Your task to perform on an android device: What's the weather today? Image 0: 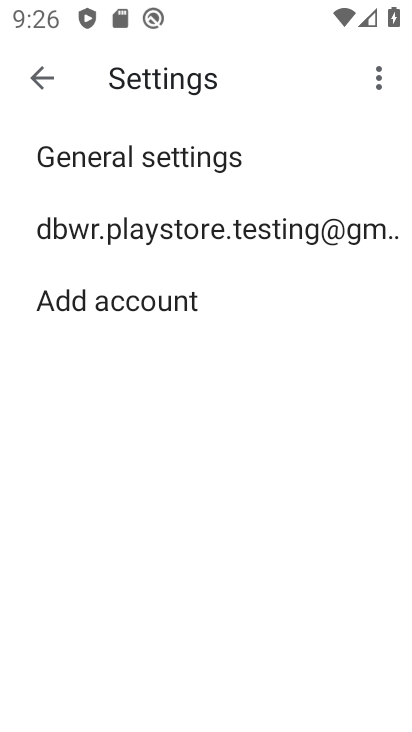
Step 0: press home button
Your task to perform on an android device: What's the weather today? Image 1: 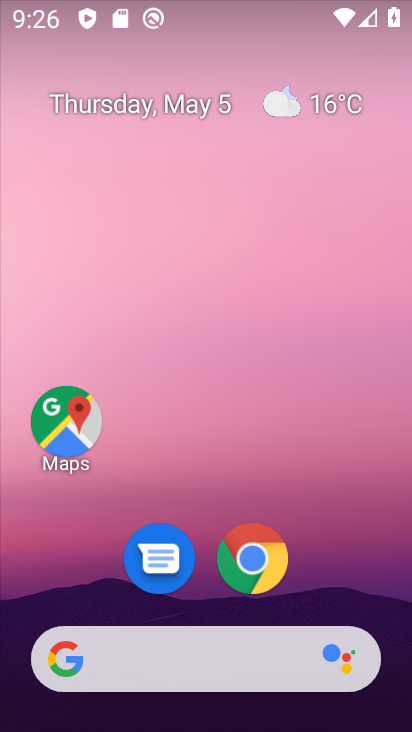
Step 1: click (277, 564)
Your task to perform on an android device: What's the weather today? Image 2: 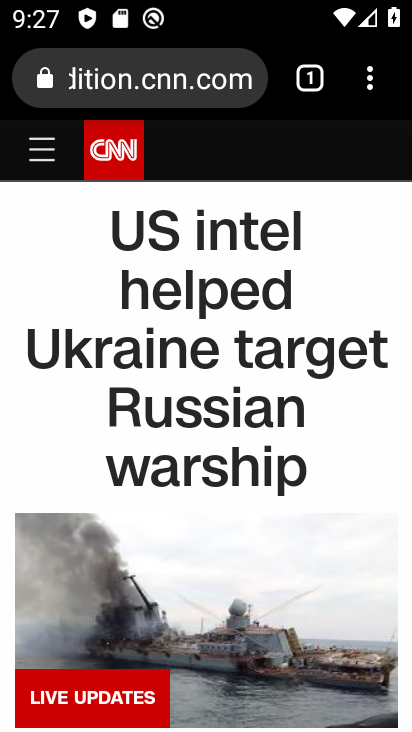
Step 2: click (148, 61)
Your task to perform on an android device: What's the weather today? Image 3: 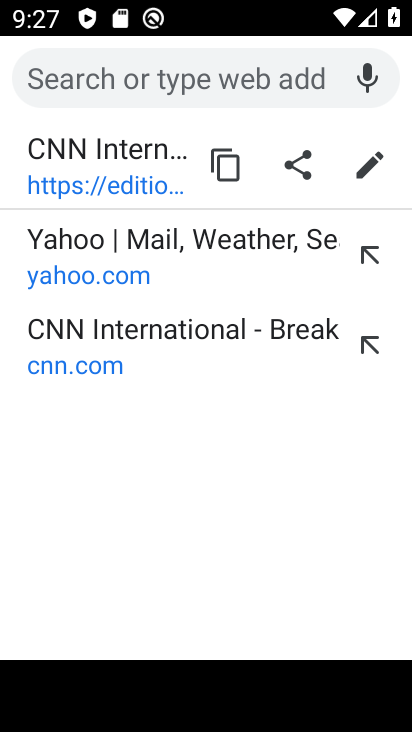
Step 3: type "What's the weather today?"
Your task to perform on an android device: What's the weather today? Image 4: 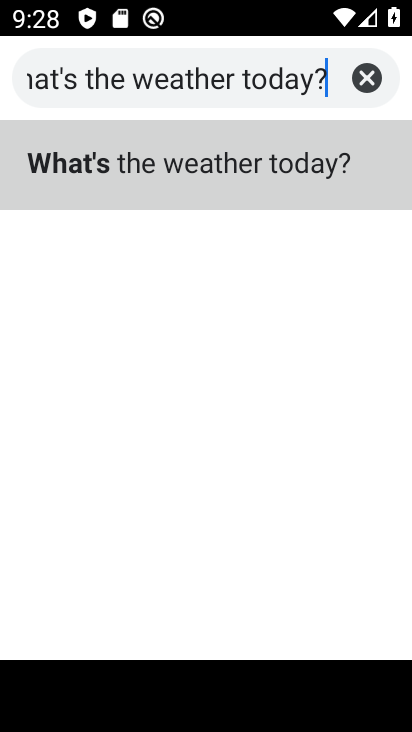
Step 4: click (229, 170)
Your task to perform on an android device: What's the weather today? Image 5: 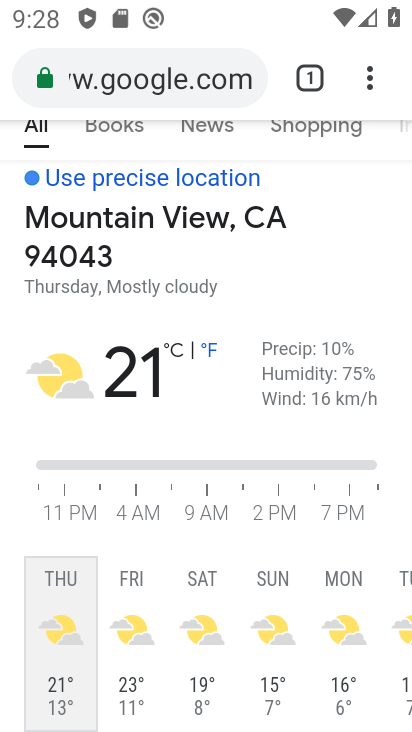
Step 5: task complete